Your task to perform on an android device: turn on notifications settings in the gmail app Image 0: 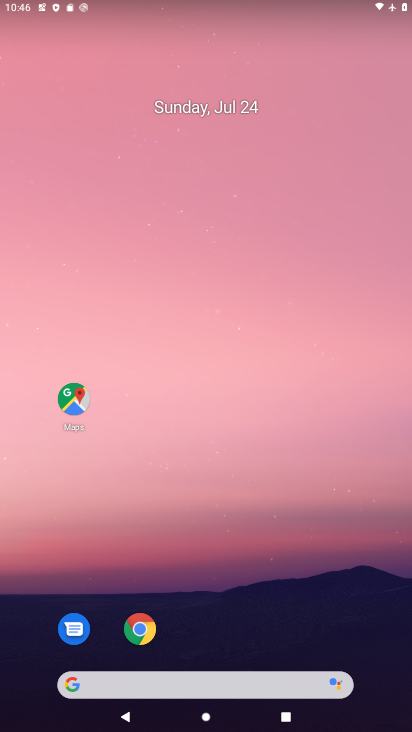
Step 0: drag from (223, 629) to (229, 38)
Your task to perform on an android device: turn on notifications settings in the gmail app Image 1: 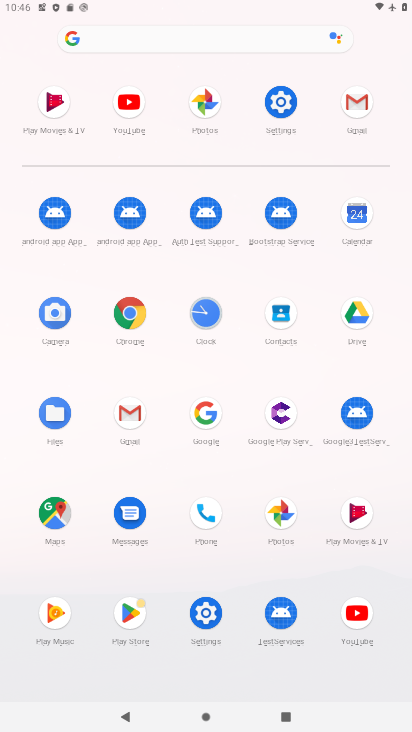
Step 1: click (365, 110)
Your task to perform on an android device: turn on notifications settings in the gmail app Image 2: 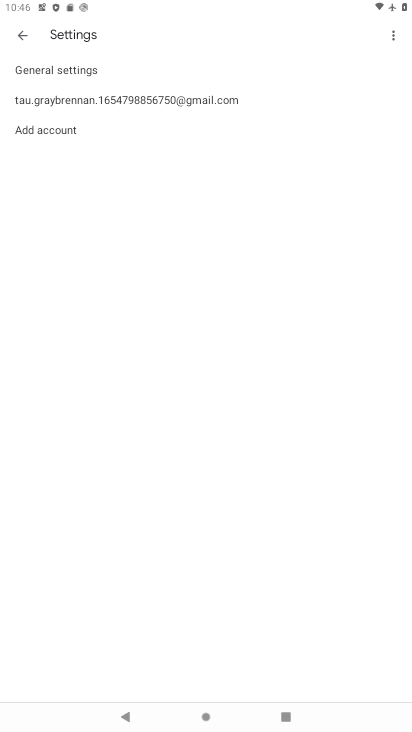
Step 2: click (149, 72)
Your task to perform on an android device: turn on notifications settings in the gmail app Image 3: 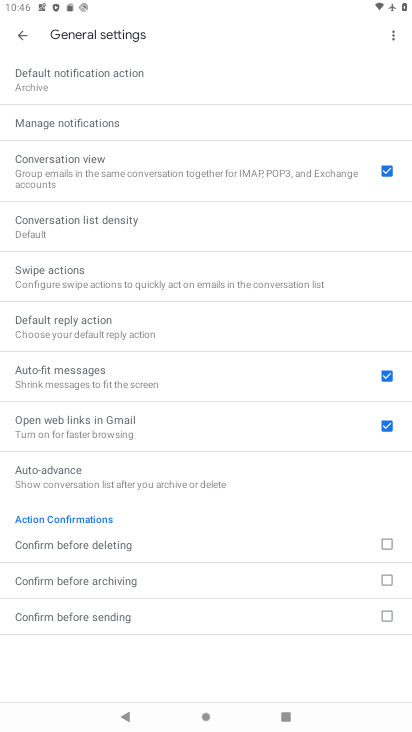
Step 3: click (183, 133)
Your task to perform on an android device: turn on notifications settings in the gmail app Image 4: 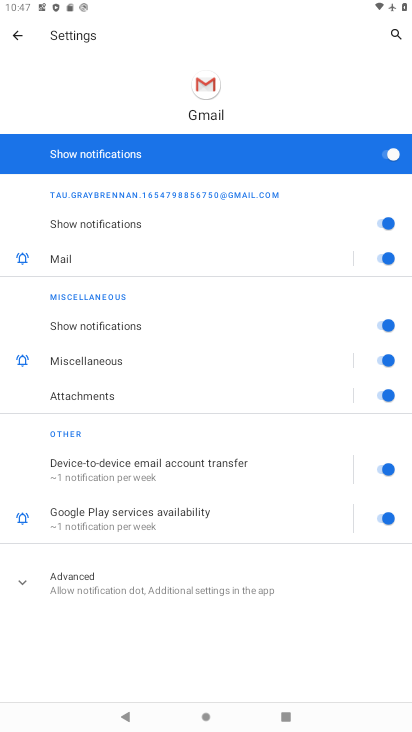
Step 4: task complete